Your task to perform on an android device: Open calendar and show me the second week of next month Image 0: 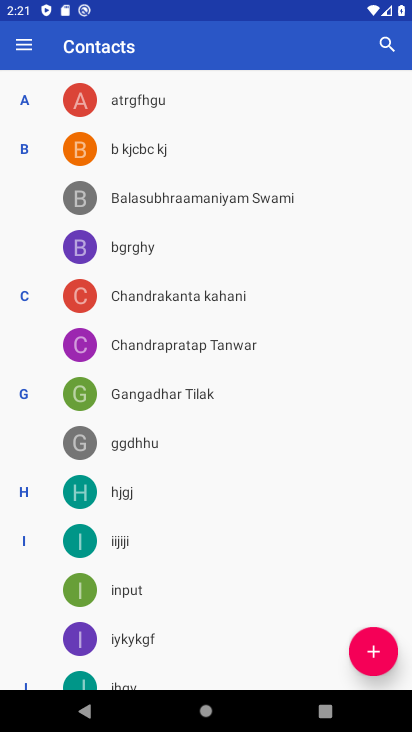
Step 0: press home button
Your task to perform on an android device: Open calendar and show me the second week of next month Image 1: 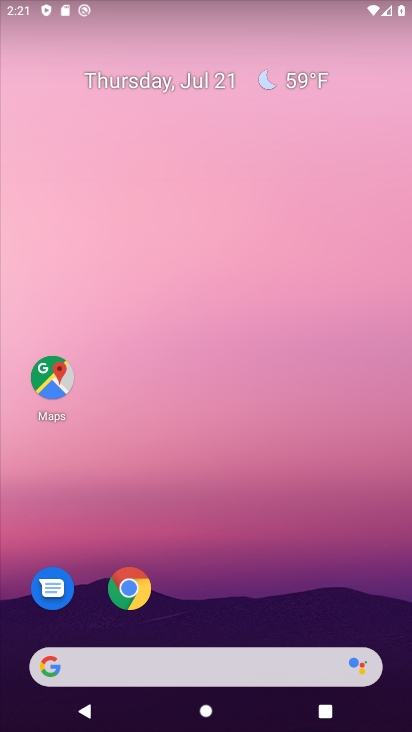
Step 1: drag from (387, 660) to (369, 73)
Your task to perform on an android device: Open calendar and show me the second week of next month Image 2: 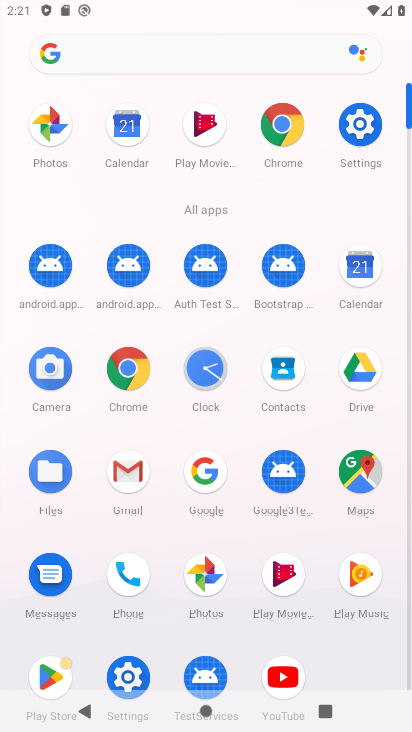
Step 2: click (203, 379)
Your task to perform on an android device: Open calendar and show me the second week of next month Image 3: 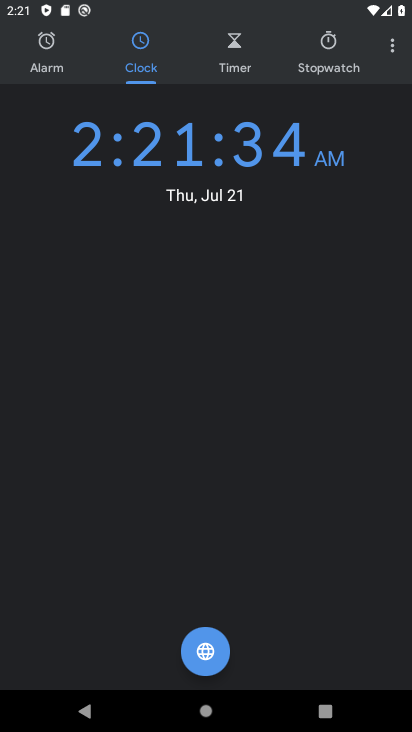
Step 3: press home button
Your task to perform on an android device: Open calendar and show me the second week of next month Image 4: 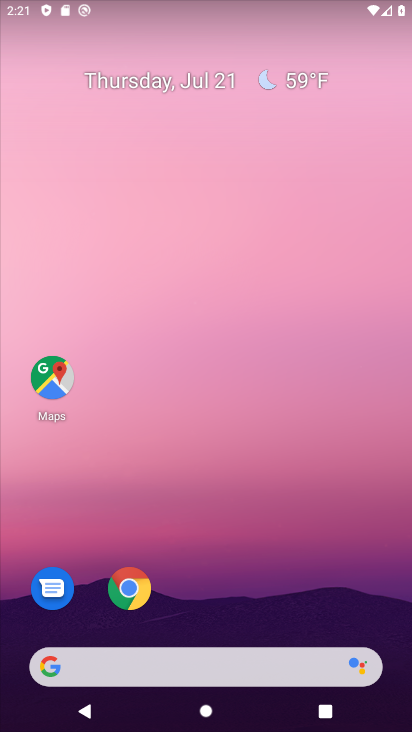
Step 4: drag from (388, 689) to (367, 151)
Your task to perform on an android device: Open calendar and show me the second week of next month Image 5: 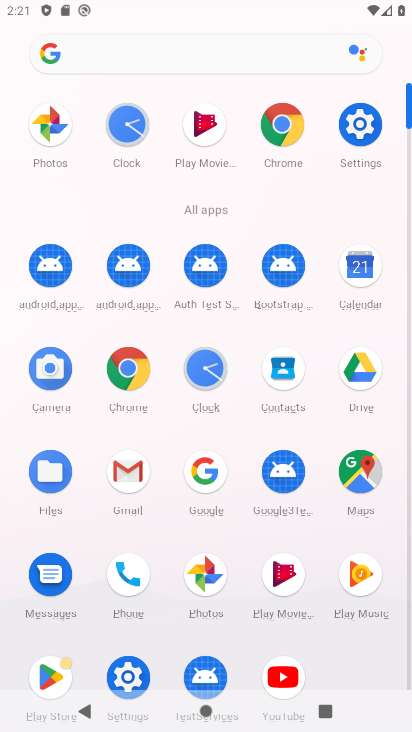
Step 5: click (359, 270)
Your task to perform on an android device: Open calendar and show me the second week of next month Image 6: 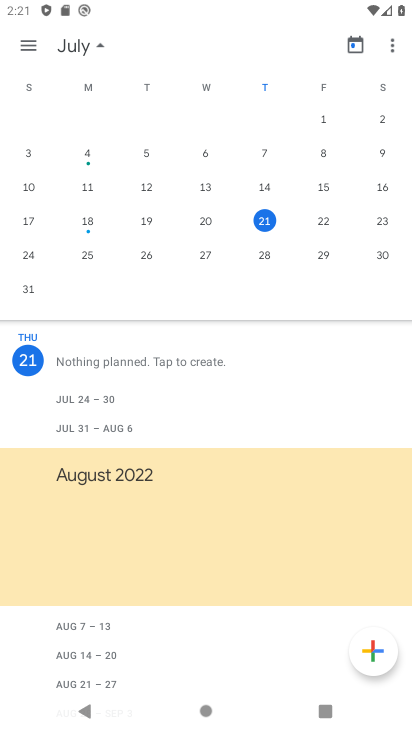
Step 6: drag from (394, 192) to (135, 200)
Your task to perform on an android device: Open calendar and show me the second week of next month Image 7: 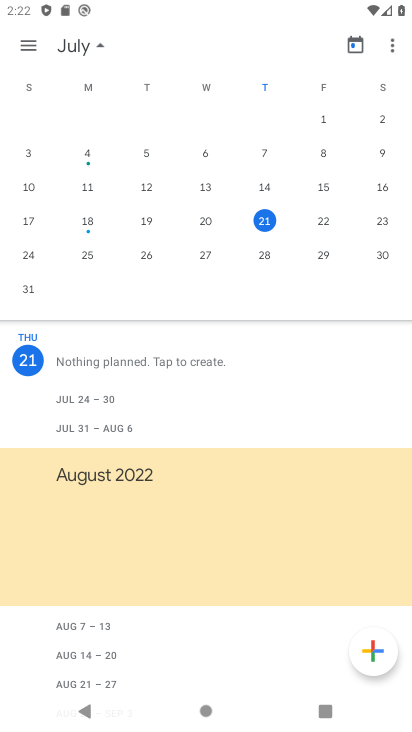
Step 7: drag from (393, 214) to (44, 193)
Your task to perform on an android device: Open calendar and show me the second week of next month Image 8: 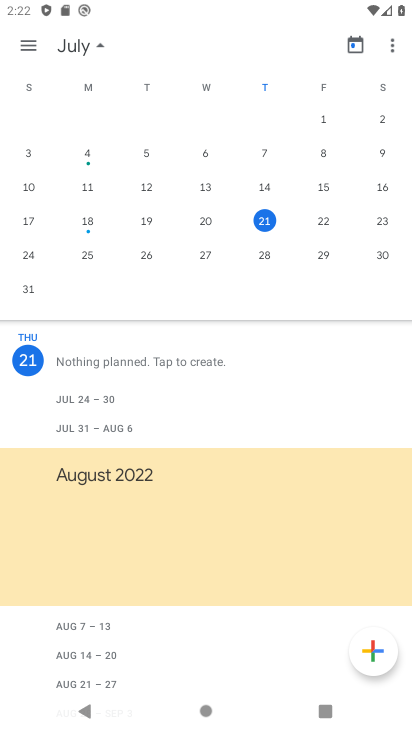
Step 8: drag from (399, 218) to (157, 190)
Your task to perform on an android device: Open calendar and show me the second week of next month Image 9: 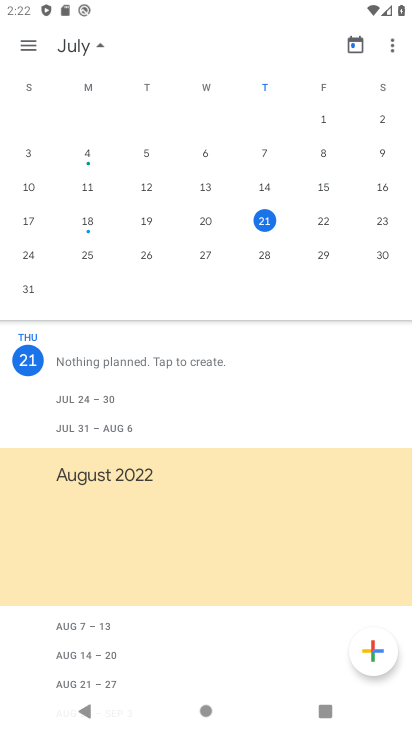
Step 9: drag from (388, 229) to (69, 218)
Your task to perform on an android device: Open calendar and show me the second week of next month Image 10: 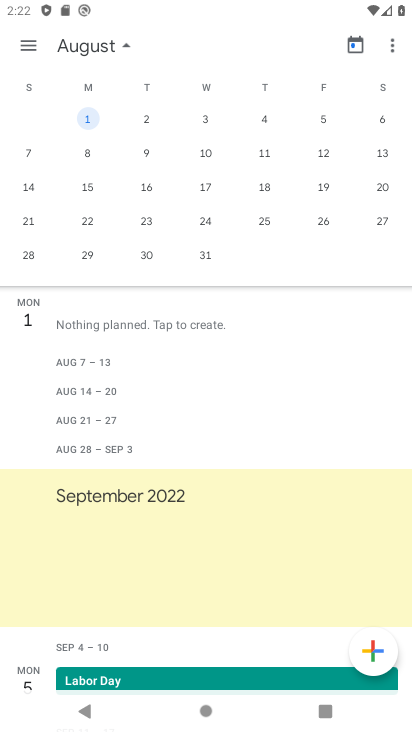
Step 10: click (266, 154)
Your task to perform on an android device: Open calendar and show me the second week of next month Image 11: 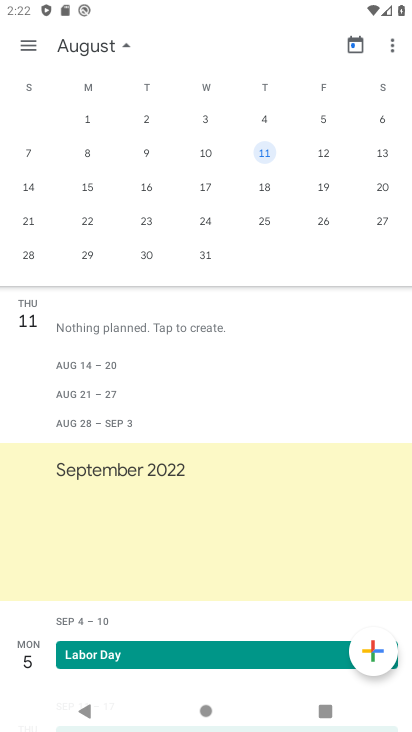
Step 11: task complete